Your task to perform on an android device: Go to internet settings Image 0: 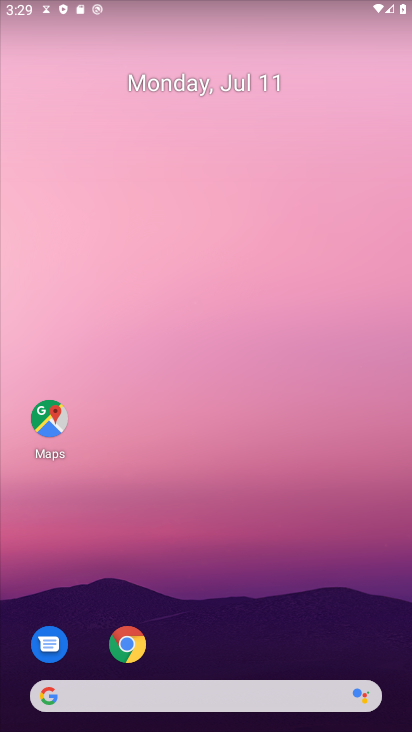
Step 0: drag from (223, 731) to (188, 94)
Your task to perform on an android device: Go to internet settings Image 1: 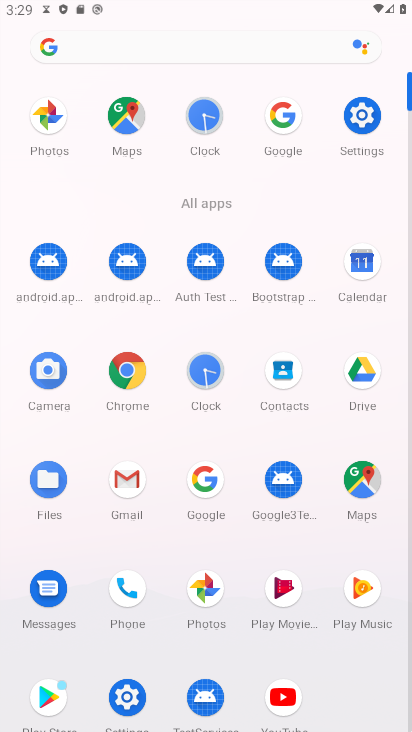
Step 1: click (361, 122)
Your task to perform on an android device: Go to internet settings Image 2: 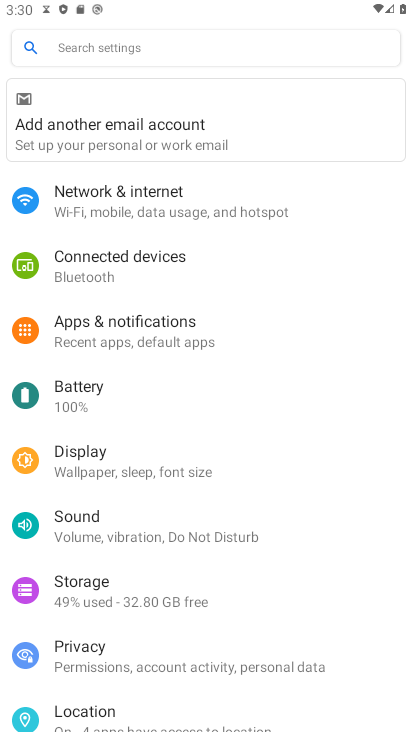
Step 2: click (89, 204)
Your task to perform on an android device: Go to internet settings Image 3: 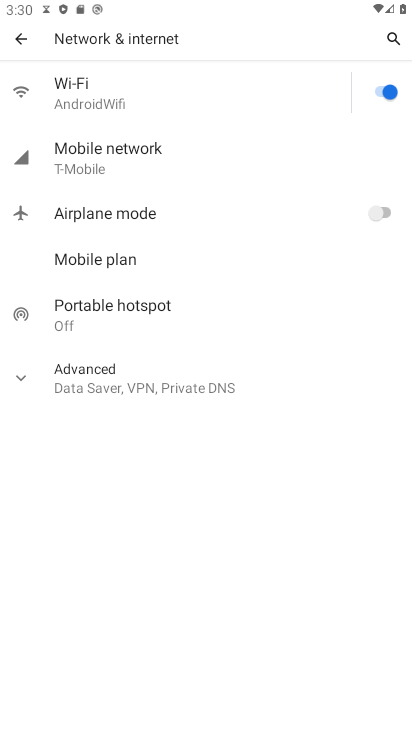
Step 3: click (89, 146)
Your task to perform on an android device: Go to internet settings Image 4: 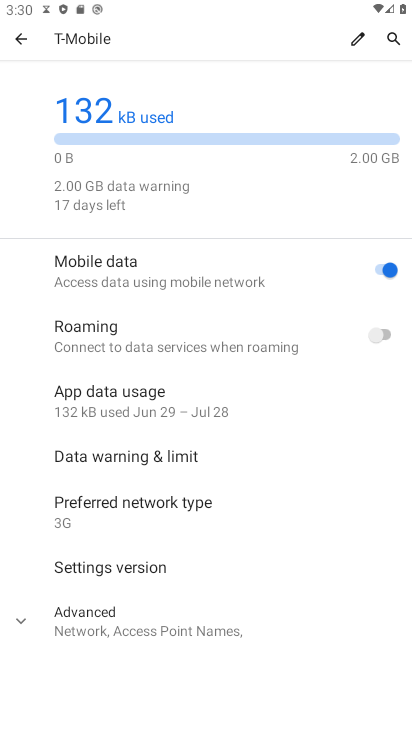
Step 4: task complete